Your task to perform on an android device: Go to settings Image 0: 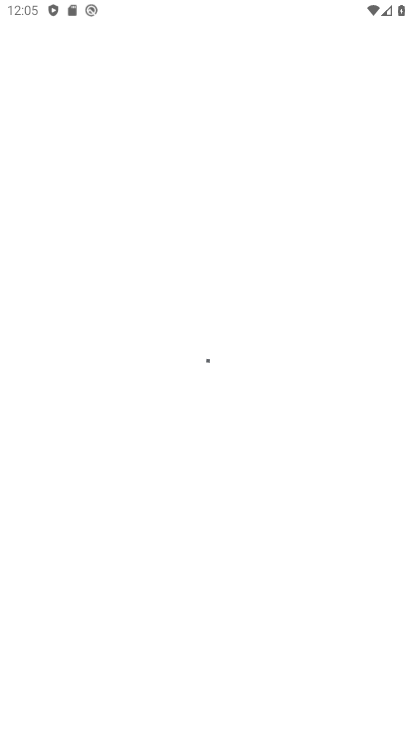
Step 0: press home button
Your task to perform on an android device: Go to settings Image 1: 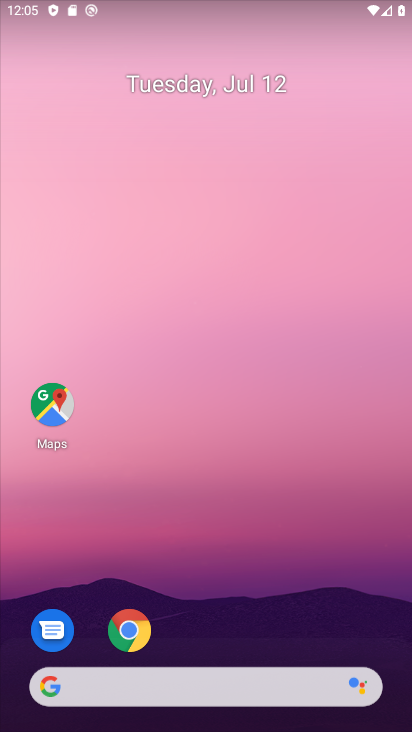
Step 1: drag from (229, 559) to (268, 22)
Your task to perform on an android device: Go to settings Image 2: 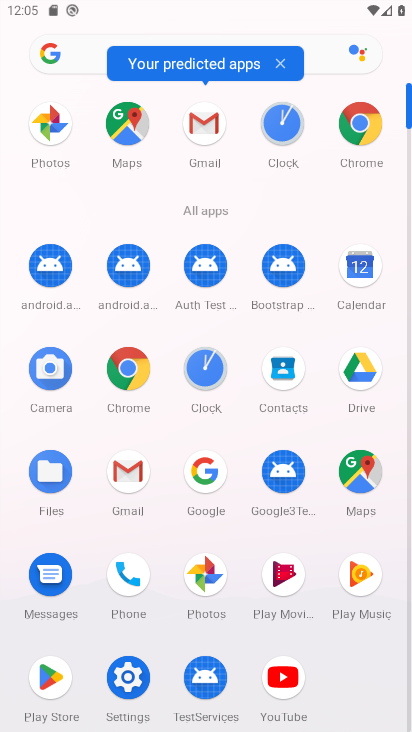
Step 2: click (93, 679)
Your task to perform on an android device: Go to settings Image 3: 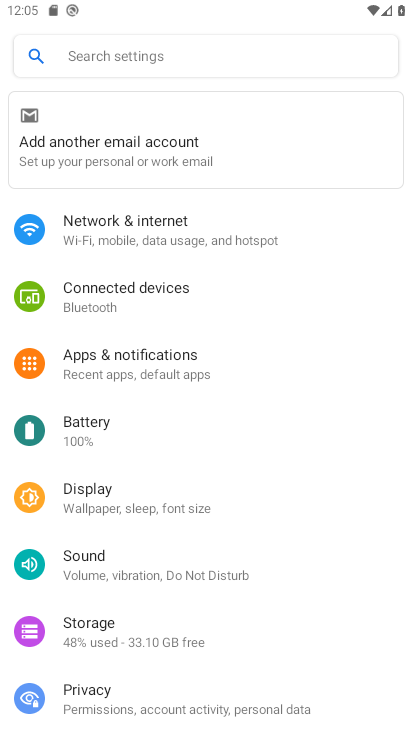
Step 3: task complete